Your task to perform on an android device: delete browsing data in the chrome app Image 0: 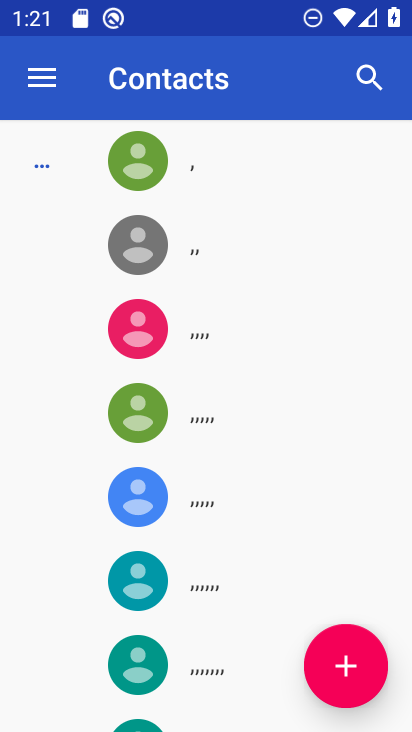
Step 0: press back button
Your task to perform on an android device: delete browsing data in the chrome app Image 1: 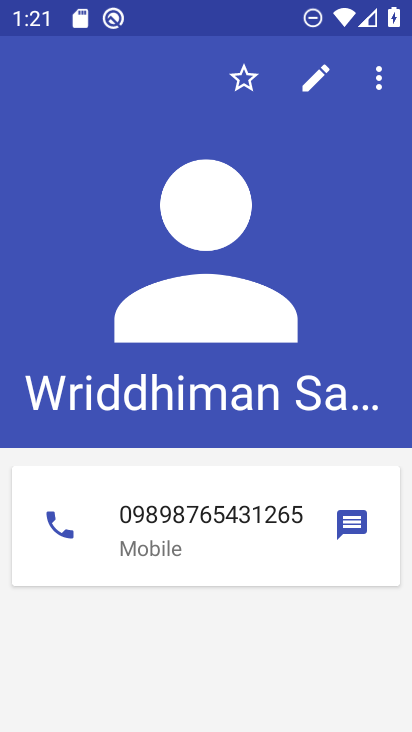
Step 1: press back button
Your task to perform on an android device: delete browsing data in the chrome app Image 2: 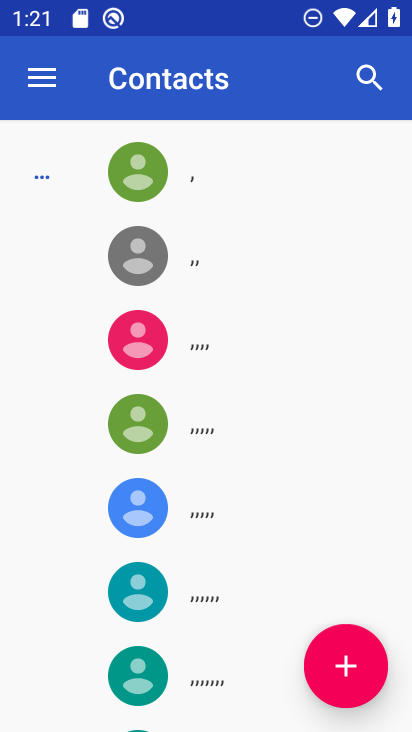
Step 2: press back button
Your task to perform on an android device: delete browsing data in the chrome app Image 3: 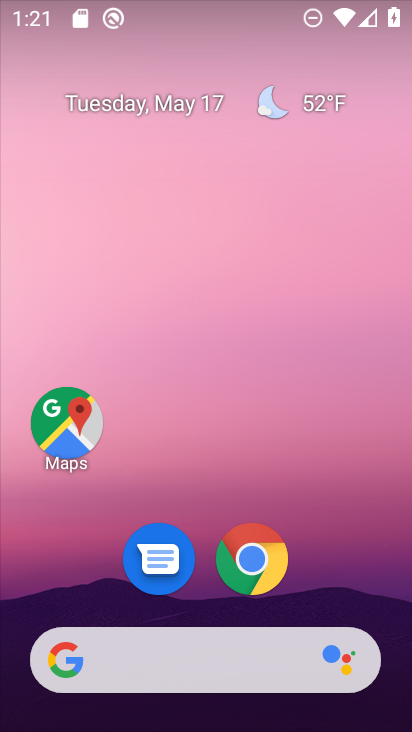
Step 3: click (251, 557)
Your task to perform on an android device: delete browsing data in the chrome app Image 4: 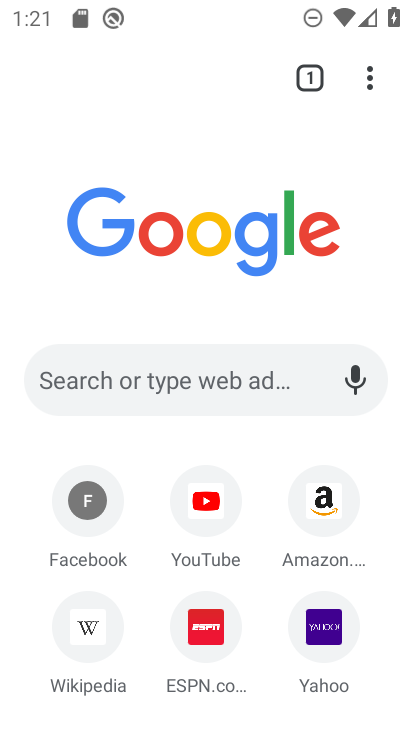
Step 4: click (370, 78)
Your task to perform on an android device: delete browsing data in the chrome app Image 5: 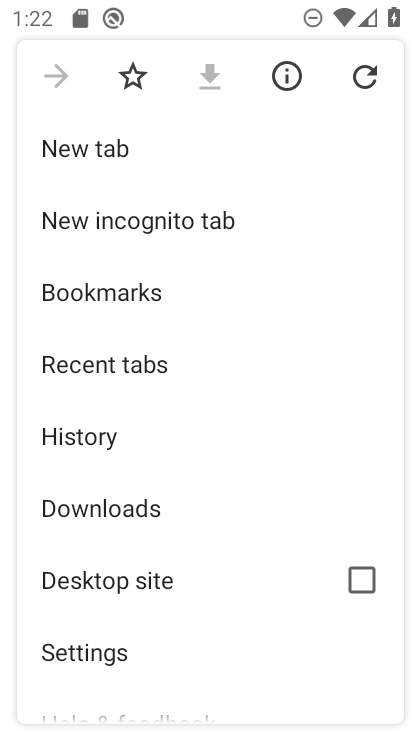
Step 5: click (84, 653)
Your task to perform on an android device: delete browsing data in the chrome app Image 6: 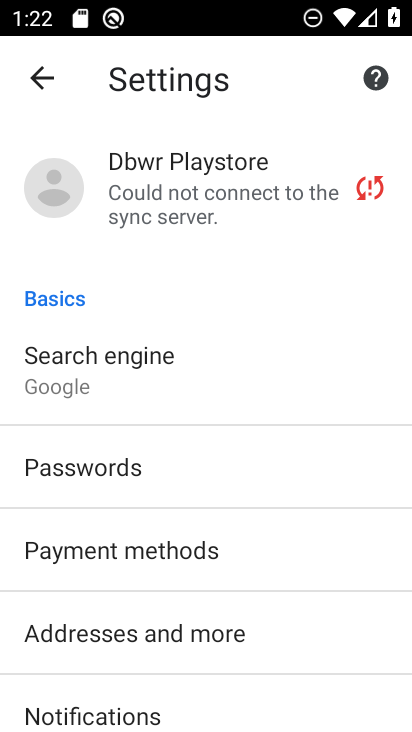
Step 6: drag from (168, 594) to (219, 487)
Your task to perform on an android device: delete browsing data in the chrome app Image 7: 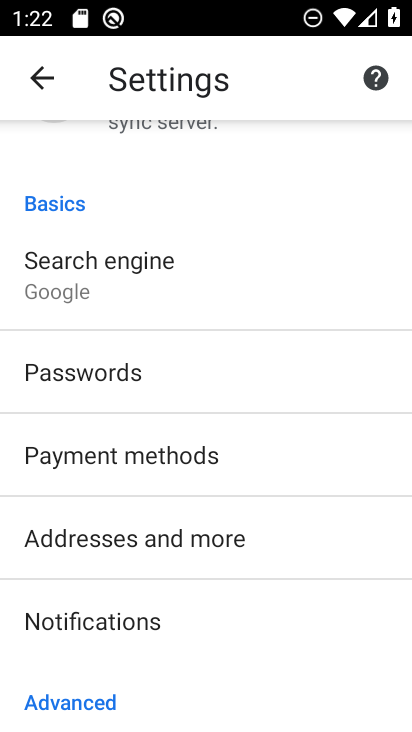
Step 7: drag from (138, 634) to (253, 481)
Your task to perform on an android device: delete browsing data in the chrome app Image 8: 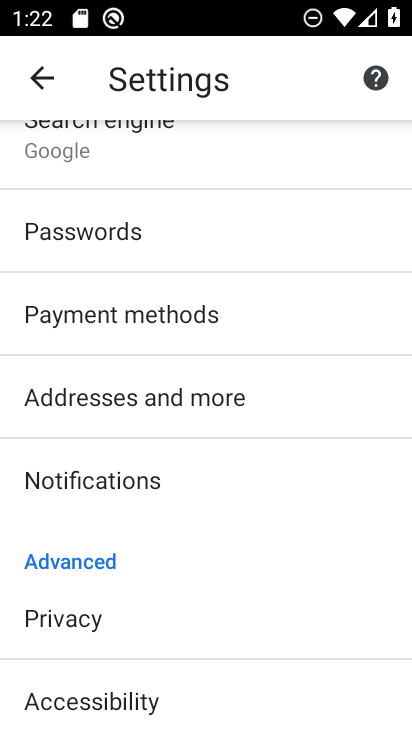
Step 8: click (51, 621)
Your task to perform on an android device: delete browsing data in the chrome app Image 9: 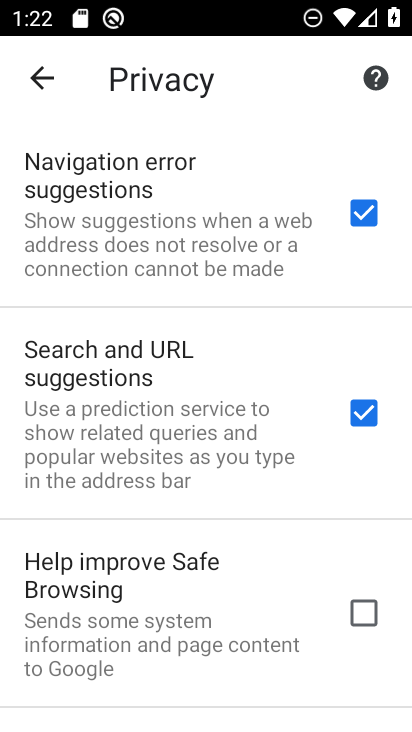
Step 9: drag from (171, 585) to (211, 465)
Your task to perform on an android device: delete browsing data in the chrome app Image 10: 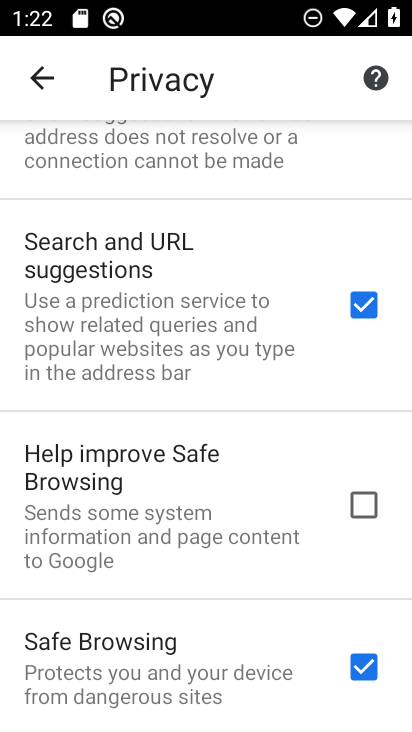
Step 10: drag from (183, 654) to (221, 531)
Your task to perform on an android device: delete browsing data in the chrome app Image 11: 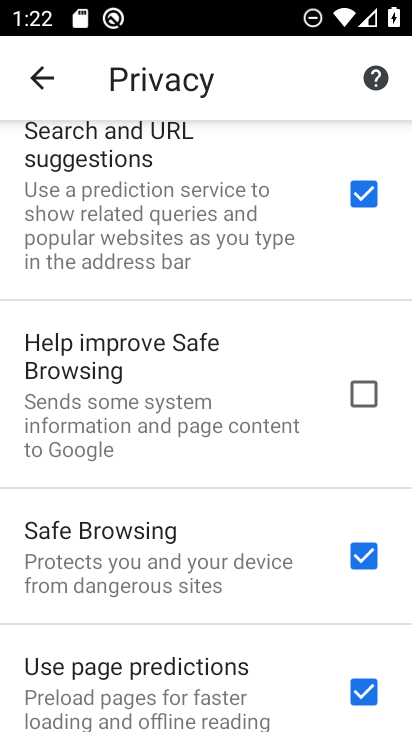
Step 11: drag from (171, 686) to (217, 529)
Your task to perform on an android device: delete browsing data in the chrome app Image 12: 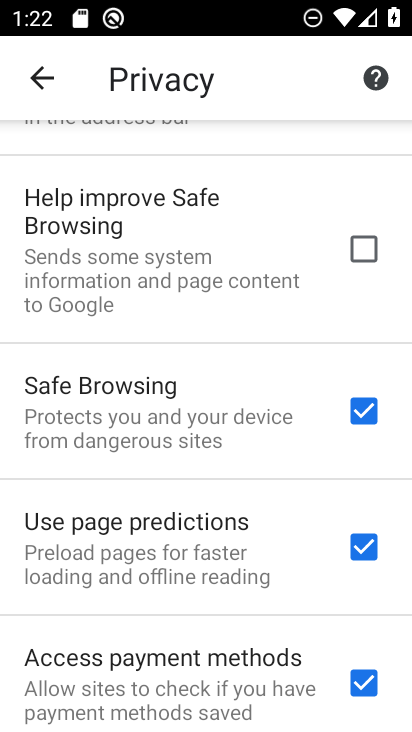
Step 12: drag from (157, 677) to (219, 519)
Your task to perform on an android device: delete browsing data in the chrome app Image 13: 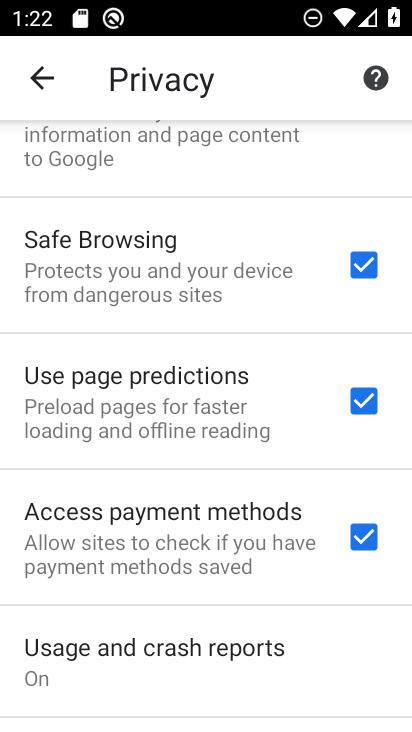
Step 13: drag from (138, 674) to (234, 479)
Your task to perform on an android device: delete browsing data in the chrome app Image 14: 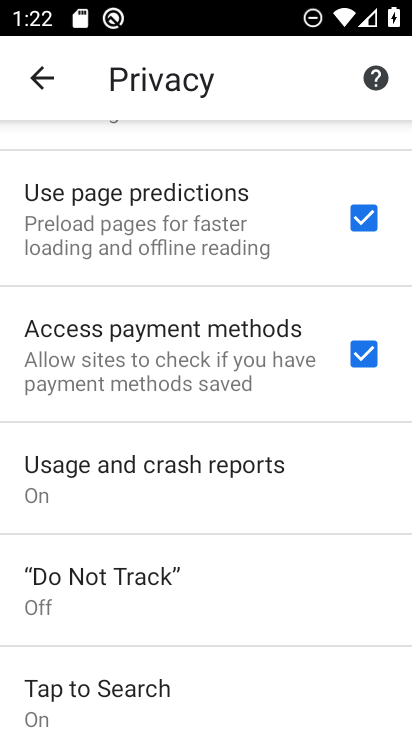
Step 14: drag from (142, 654) to (214, 496)
Your task to perform on an android device: delete browsing data in the chrome app Image 15: 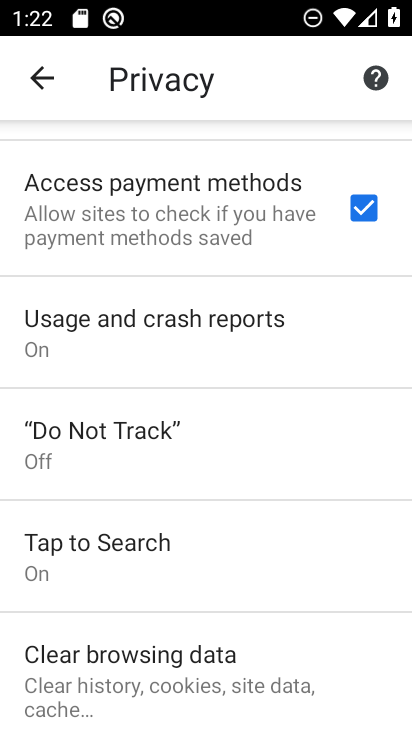
Step 15: click (125, 663)
Your task to perform on an android device: delete browsing data in the chrome app Image 16: 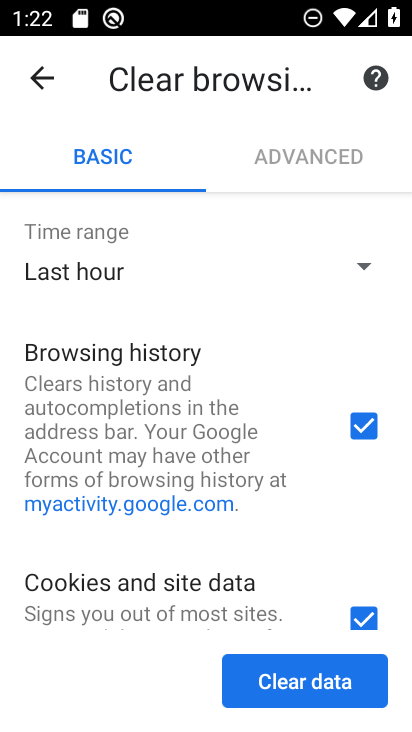
Step 16: click (251, 673)
Your task to perform on an android device: delete browsing data in the chrome app Image 17: 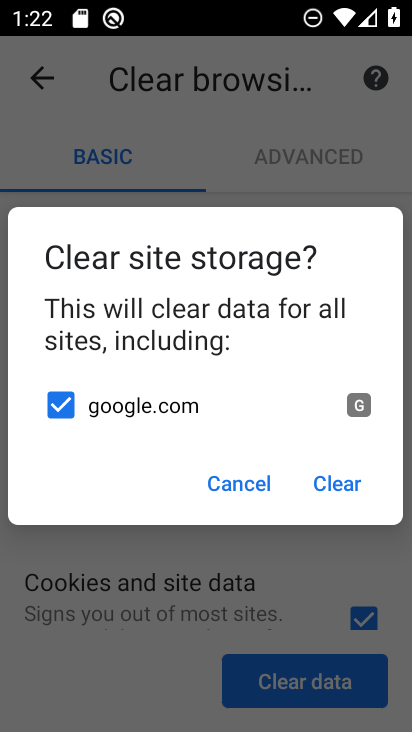
Step 17: click (363, 488)
Your task to perform on an android device: delete browsing data in the chrome app Image 18: 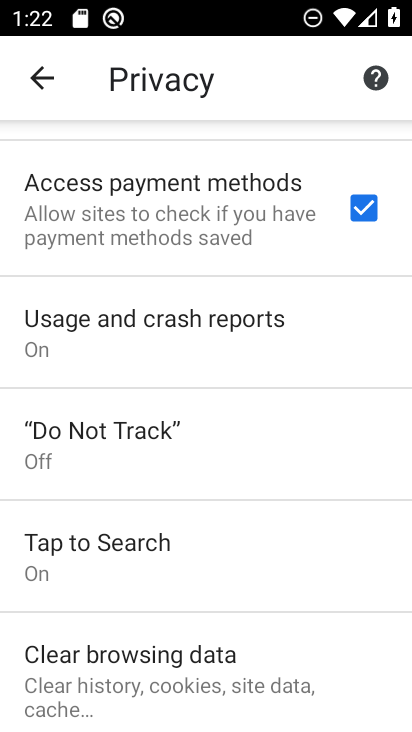
Step 18: task complete